Your task to perform on an android device: Open location settings Image 0: 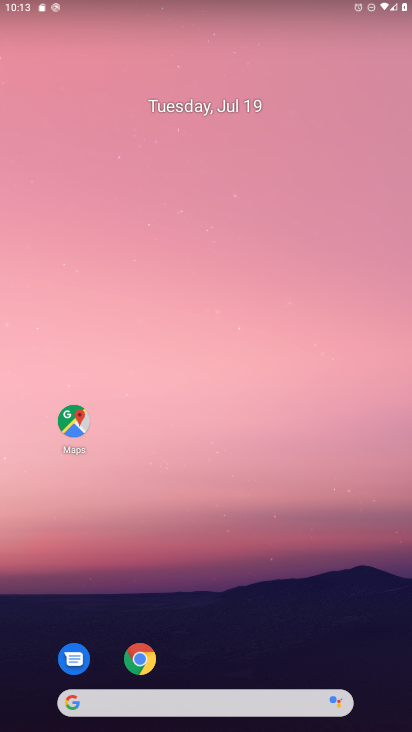
Step 0: drag from (204, 637) to (204, 67)
Your task to perform on an android device: Open location settings Image 1: 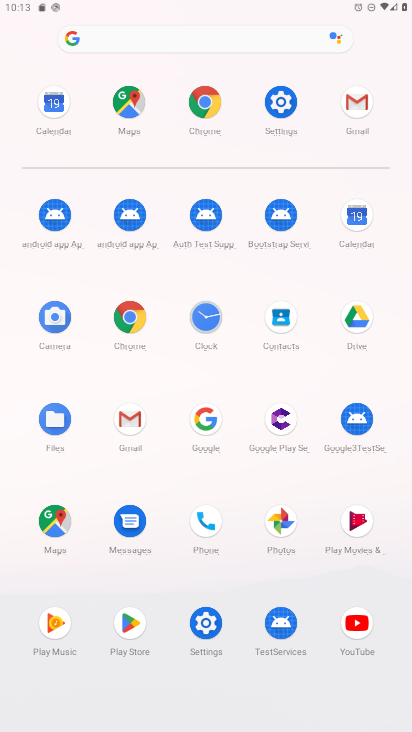
Step 1: click (267, 95)
Your task to perform on an android device: Open location settings Image 2: 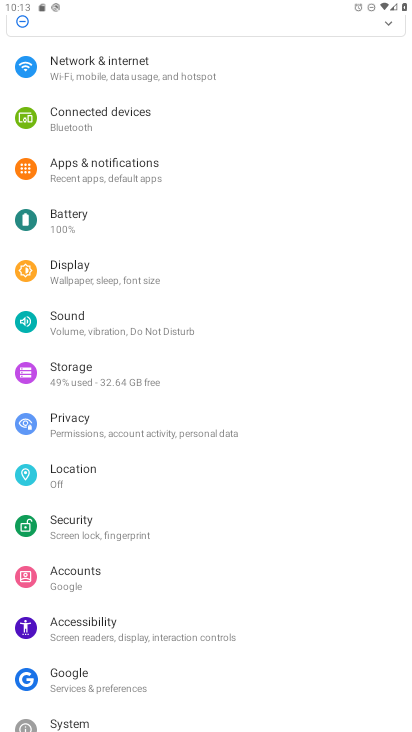
Step 2: click (102, 469)
Your task to perform on an android device: Open location settings Image 3: 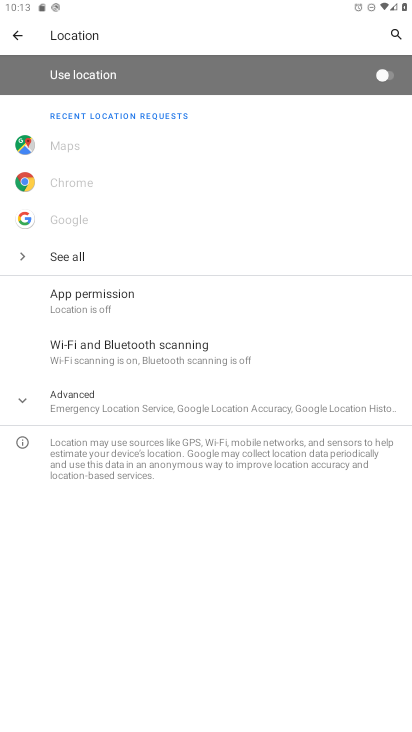
Step 3: click (181, 396)
Your task to perform on an android device: Open location settings Image 4: 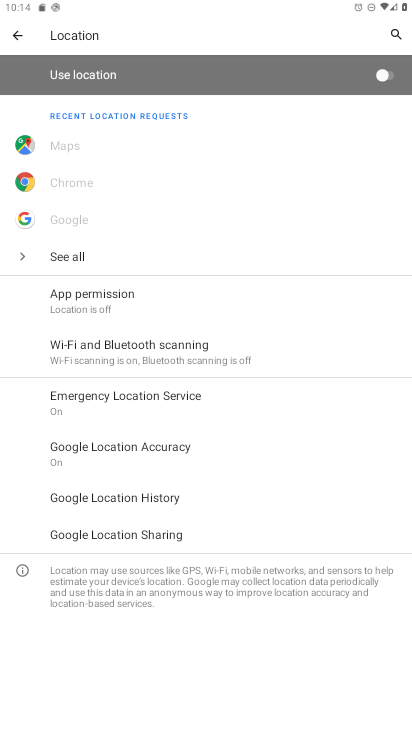
Step 4: task complete